Your task to perform on an android device: Set the phone to "Do not disturb". Image 0: 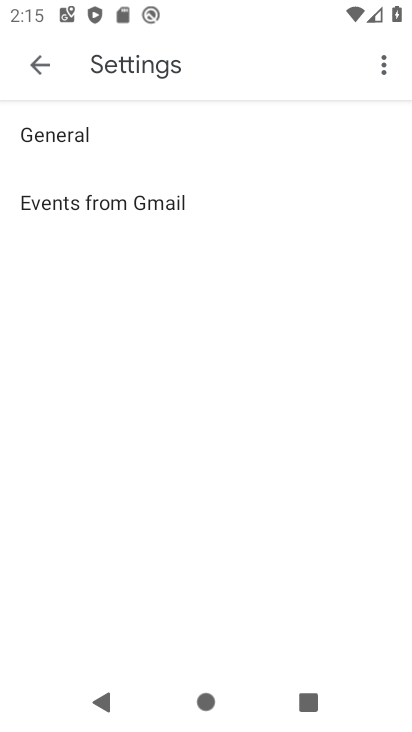
Step 0: press back button
Your task to perform on an android device: Set the phone to "Do not disturb". Image 1: 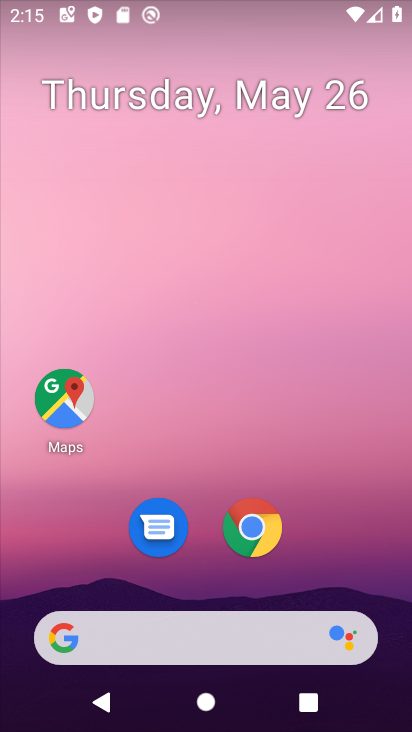
Step 1: drag from (208, 554) to (234, 49)
Your task to perform on an android device: Set the phone to "Do not disturb". Image 2: 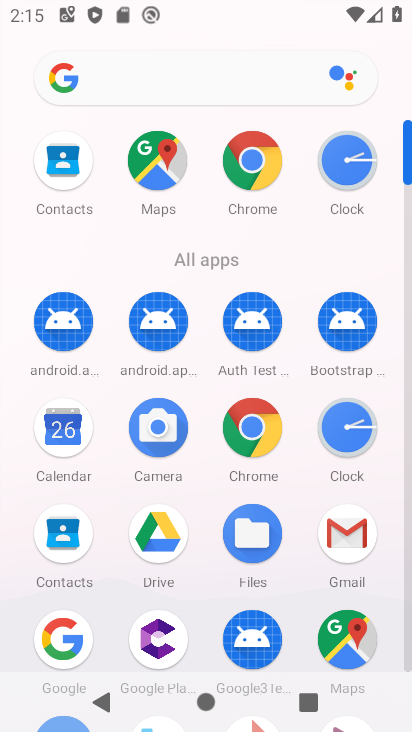
Step 2: drag from (196, 555) to (228, 95)
Your task to perform on an android device: Set the phone to "Do not disturb". Image 3: 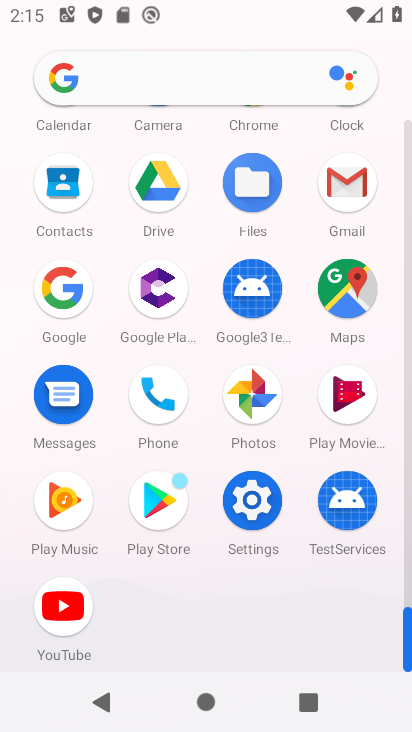
Step 3: click (162, 401)
Your task to perform on an android device: Set the phone to "Do not disturb". Image 4: 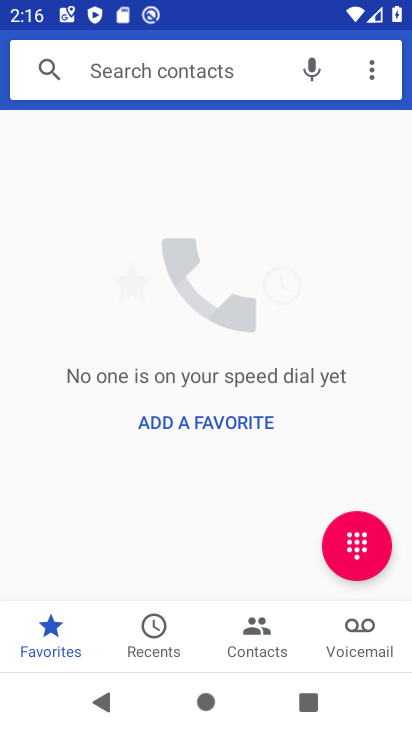
Step 4: press back button
Your task to perform on an android device: Set the phone to "Do not disturb". Image 5: 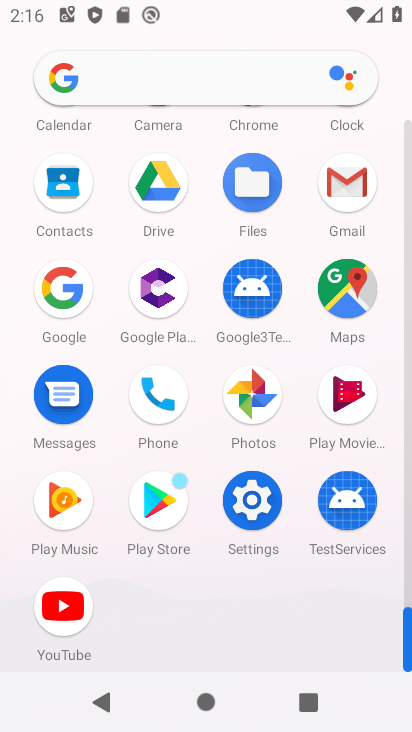
Step 5: drag from (157, 14) to (216, 642)
Your task to perform on an android device: Set the phone to "Do not disturb". Image 6: 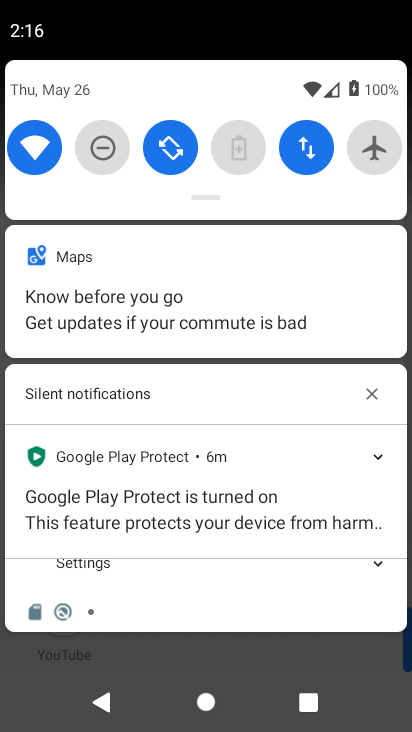
Step 6: click (97, 150)
Your task to perform on an android device: Set the phone to "Do not disturb". Image 7: 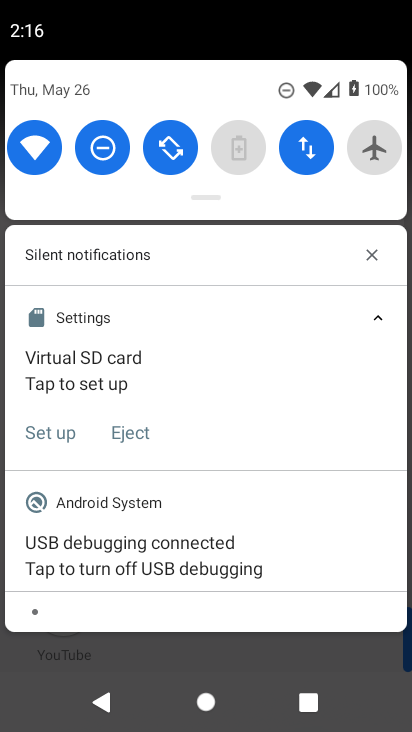
Step 7: task complete